Your task to perform on an android device: Go to internet settings Image 0: 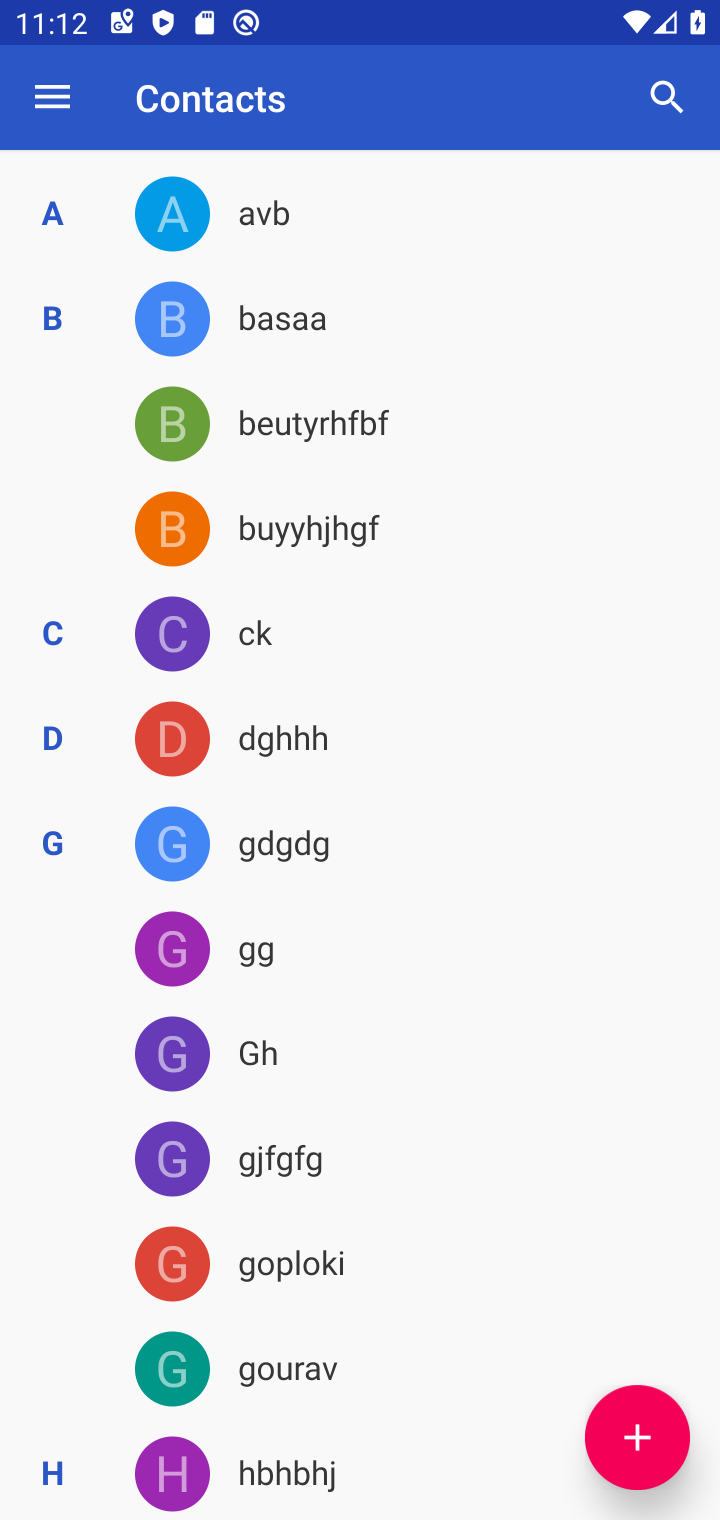
Step 0: press home button
Your task to perform on an android device: Go to internet settings Image 1: 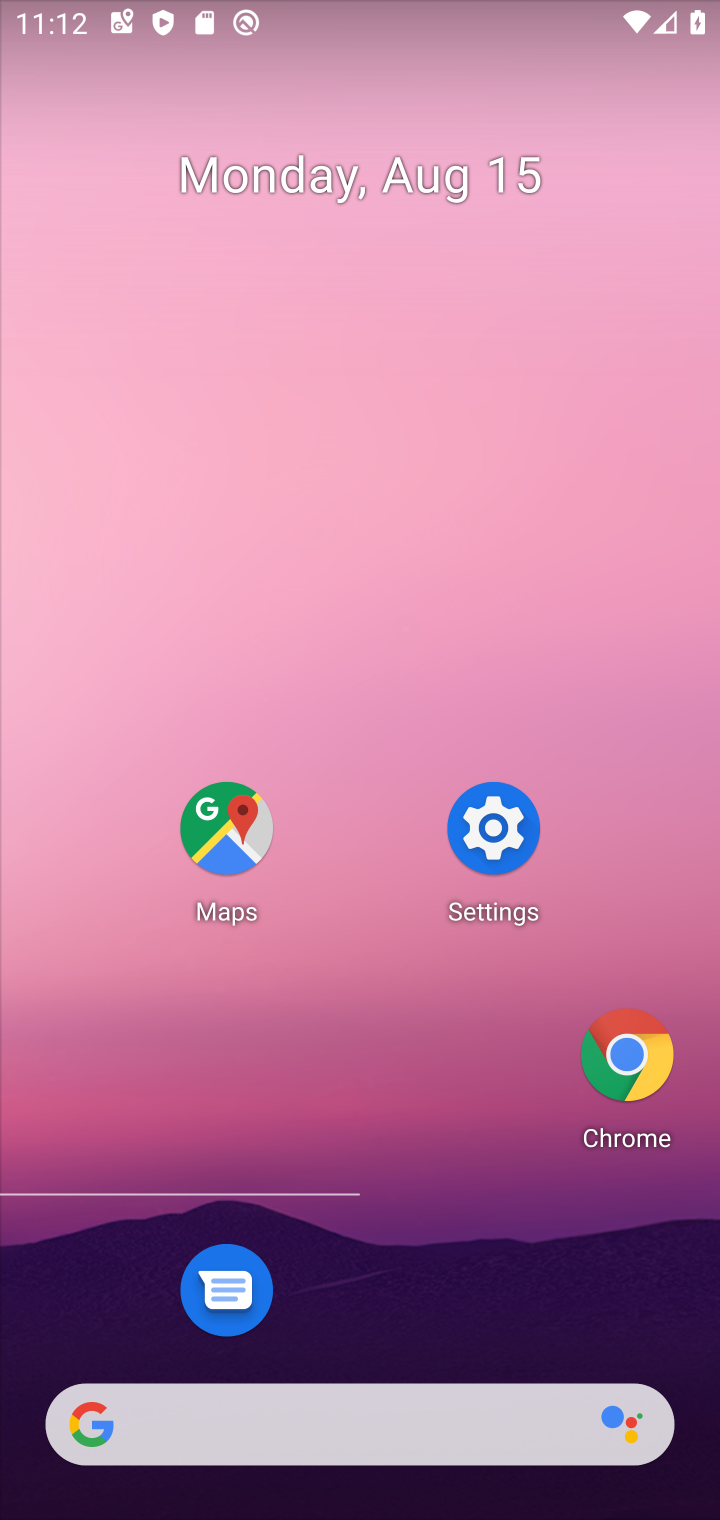
Step 1: click (480, 818)
Your task to perform on an android device: Go to internet settings Image 2: 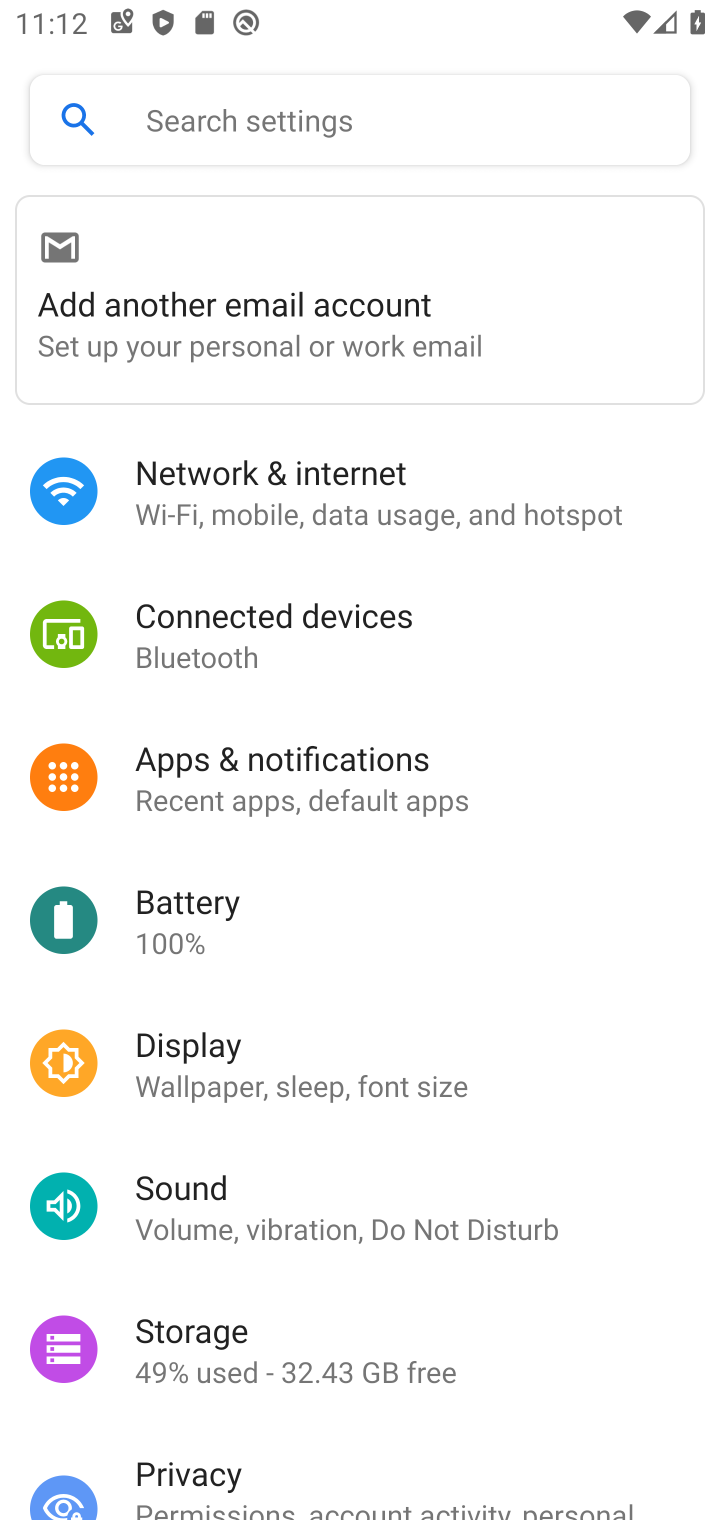
Step 2: click (320, 511)
Your task to perform on an android device: Go to internet settings Image 3: 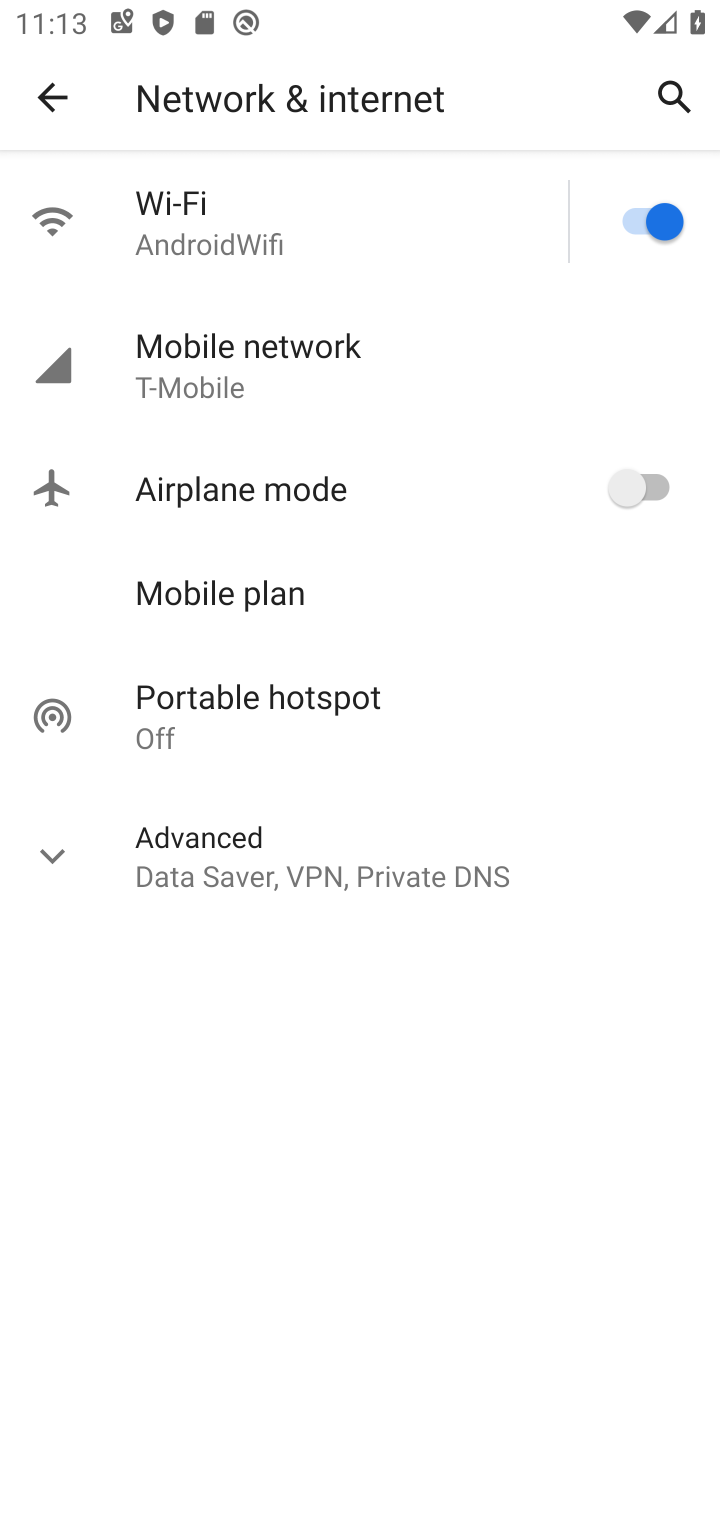
Step 3: task complete